Your task to perform on an android device: Open settings Image 0: 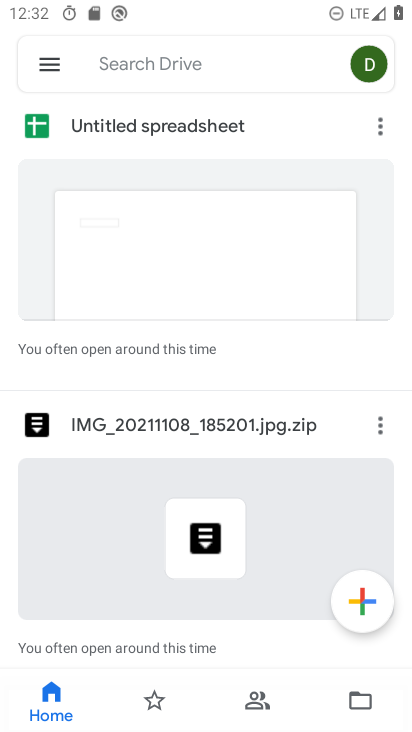
Step 0: press home button
Your task to perform on an android device: Open settings Image 1: 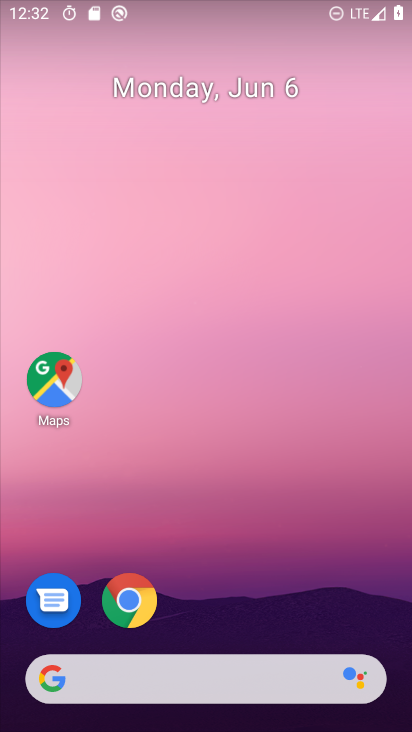
Step 1: drag from (226, 620) to (264, 306)
Your task to perform on an android device: Open settings Image 2: 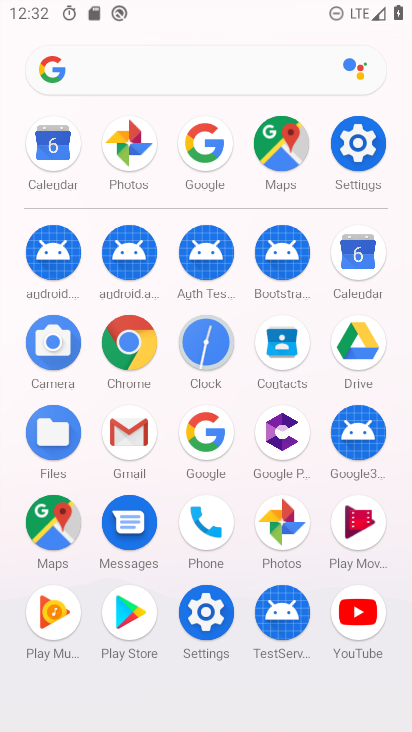
Step 2: click (371, 148)
Your task to perform on an android device: Open settings Image 3: 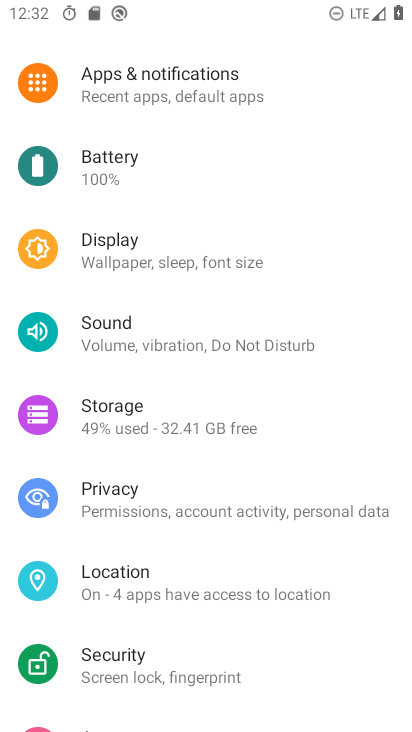
Step 3: task complete